Your task to perform on an android device: choose inbox layout in the gmail app Image 0: 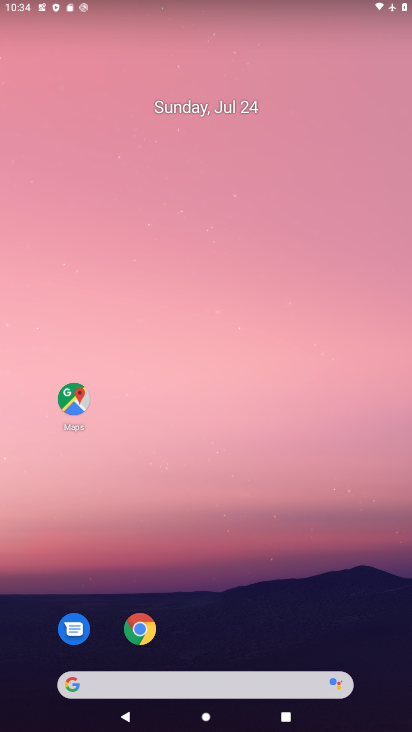
Step 0: drag from (214, 646) to (217, 67)
Your task to perform on an android device: choose inbox layout in the gmail app Image 1: 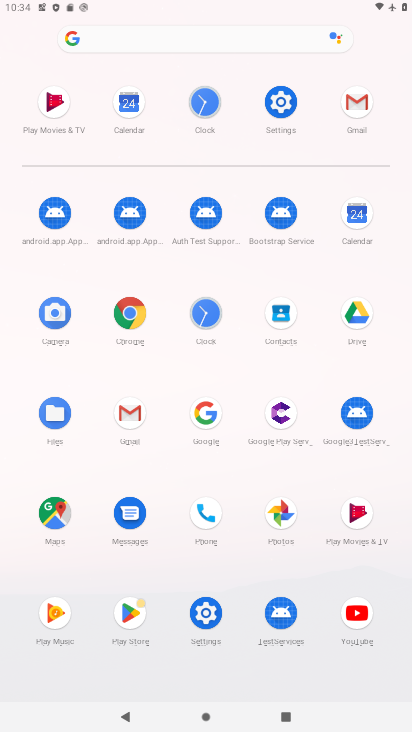
Step 1: click (370, 101)
Your task to perform on an android device: choose inbox layout in the gmail app Image 2: 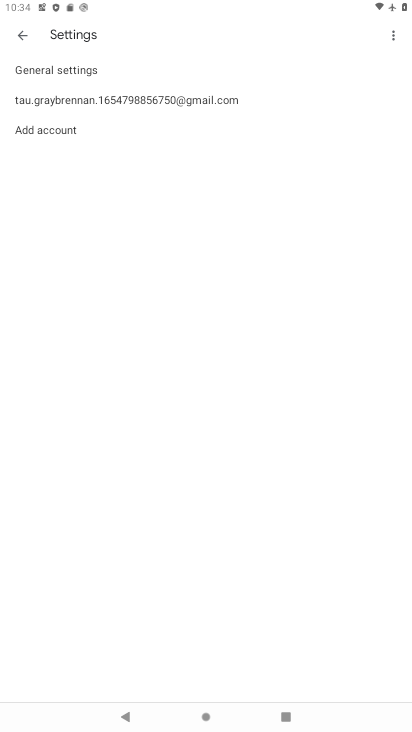
Step 2: click (23, 35)
Your task to perform on an android device: choose inbox layout in the gmail app Image 3: 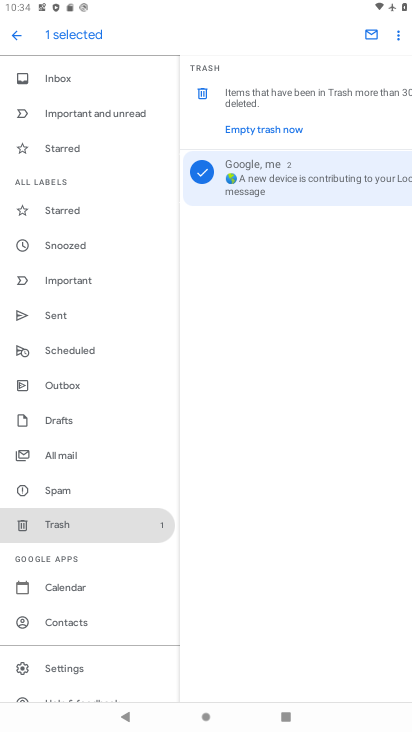
Step 3: click (70, 87)
Your task to perform on an android device: choose inbox layout in the gmail app Image 4: 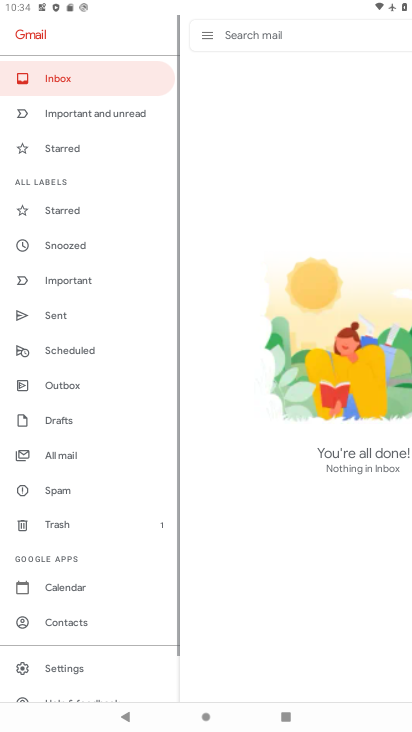
Step 4: task complete